Your task to perform on an android device: find snoozed emails in the gmail app Image 0: 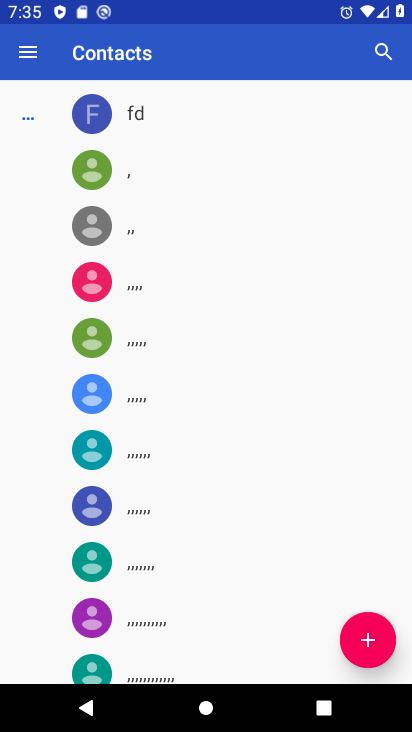
Step 0: press home button
Your task to perform on an android device: find snoozed emails in the gmail app Image 1: 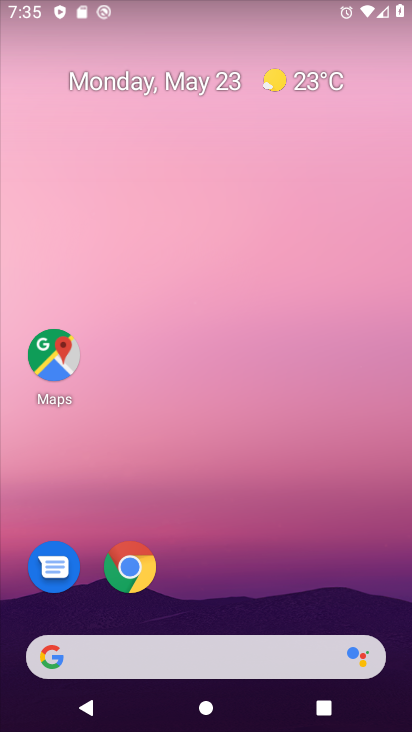
Step 1: drag from (357, 627) to (363, 161)
Your task to perform on an android device: find snoozed emails in the gmail app Image 2: 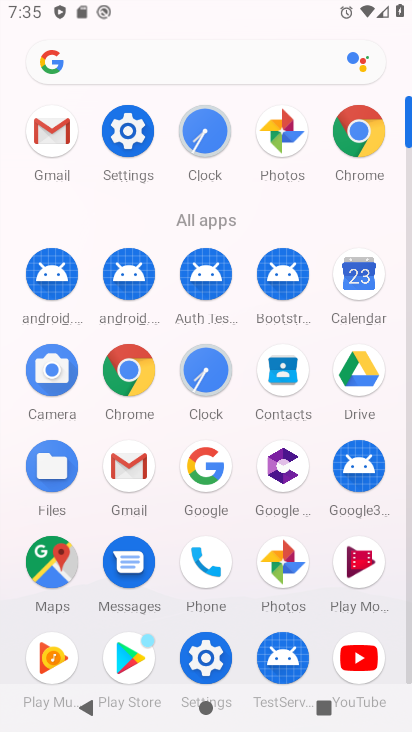
Step 2: click (116, 468)
Your task to perform on an android device: find snoozed emails in the gmail app Image 3: 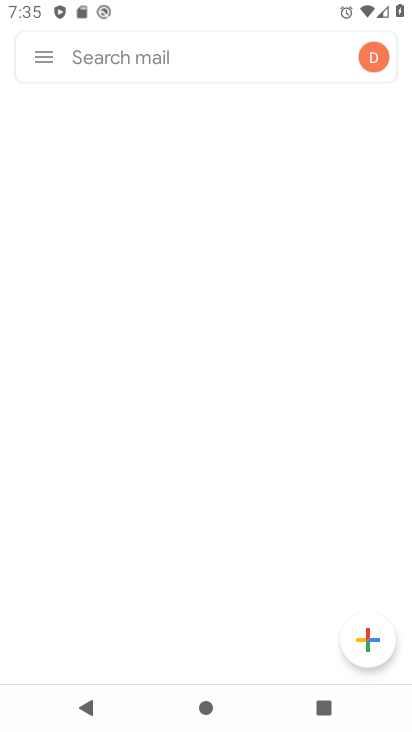
Step 3: click (46, 62)
Your task to perform on an android device: find snoozed emails in the gmail app Image 4: 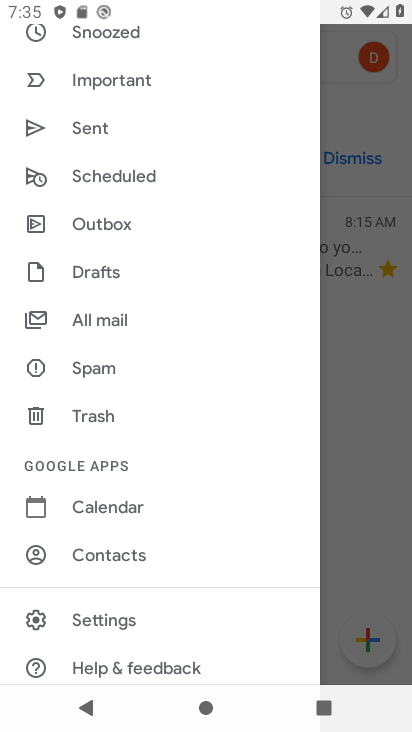
Step 4: click (126, 39)
Your task to perform on an android device: find snoozed emails in the gmail app Image 5: 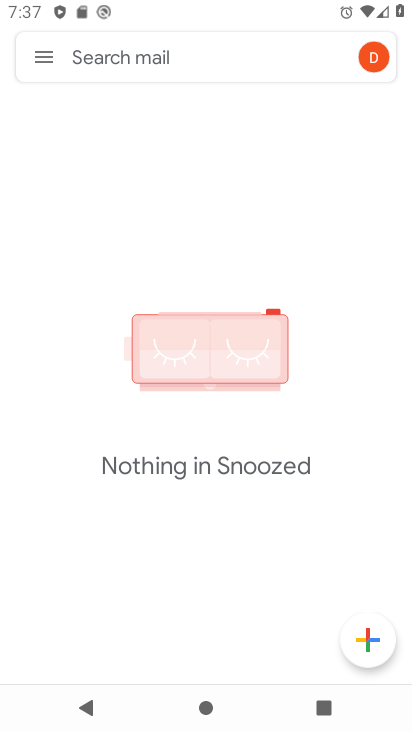
Step 5: task complete